Your task to perform on an android device: Open the calendar and show me this week's events? Image 0: 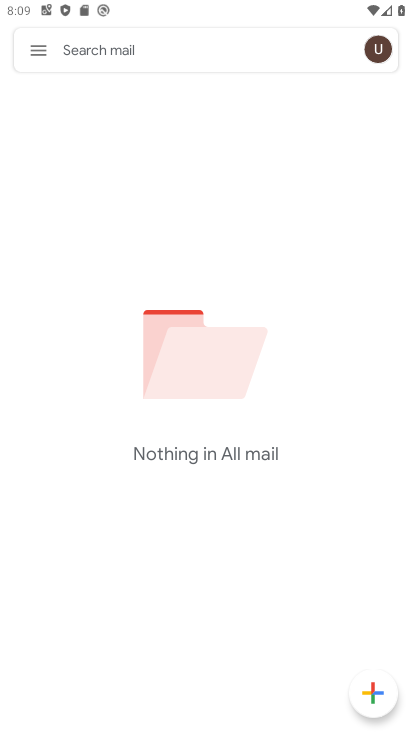
Step 0: press home button
Your task to perform on an android device: Open the calendar and show me this week's events? Image 1: 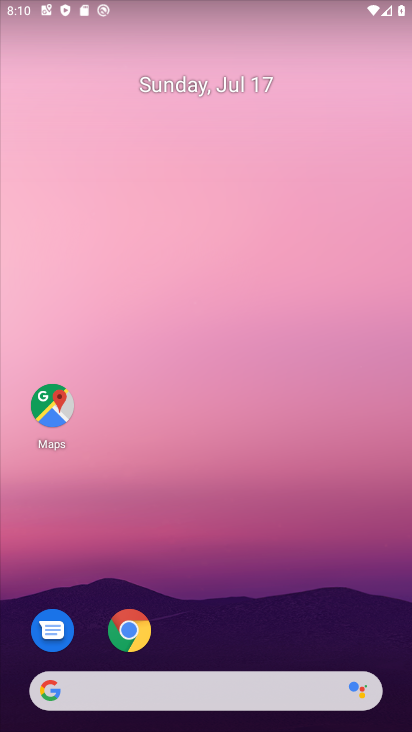
Step 1: drag from (267, 719) to (235, 92)
Your task to perform on an android device: Open the calendar and show me this week's events? Image 2: 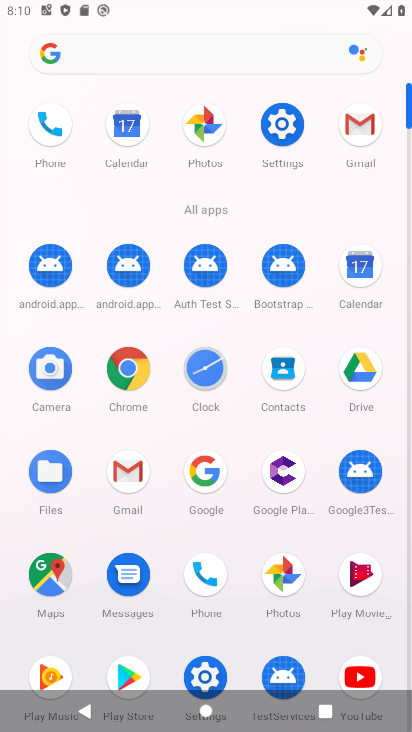
Step 2: click (356, 268)
Your task to perform on an android device: Open the calendar and show me this week's events? Image 3: 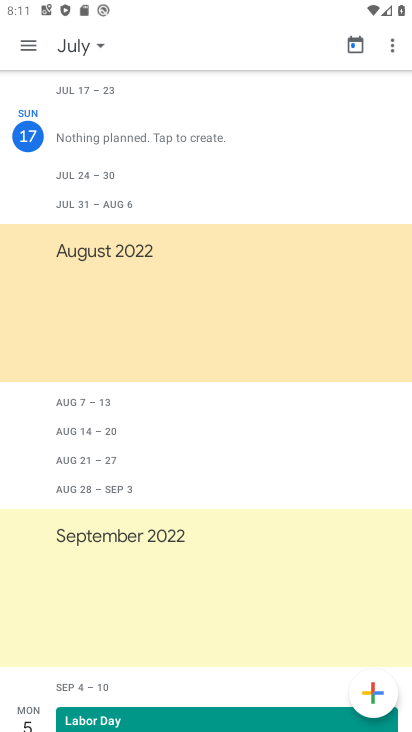
Step 3: click (74, 46)
Your task to perform on an android device: Open the calendar and show me this week's events? Image 4: 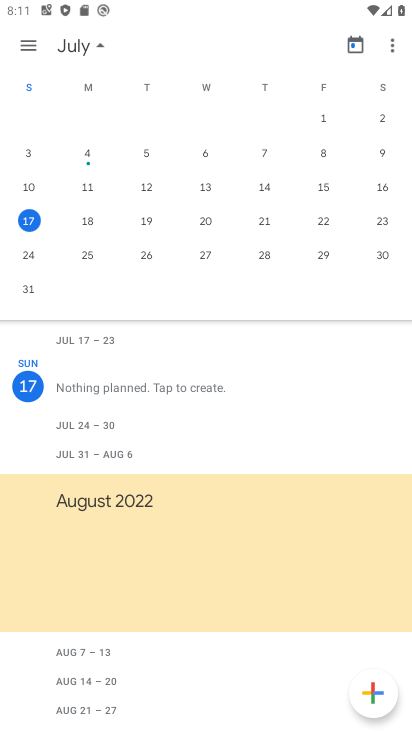
Step 4: task complete